Your task to perform on an android device: Go to eBay Image 0: 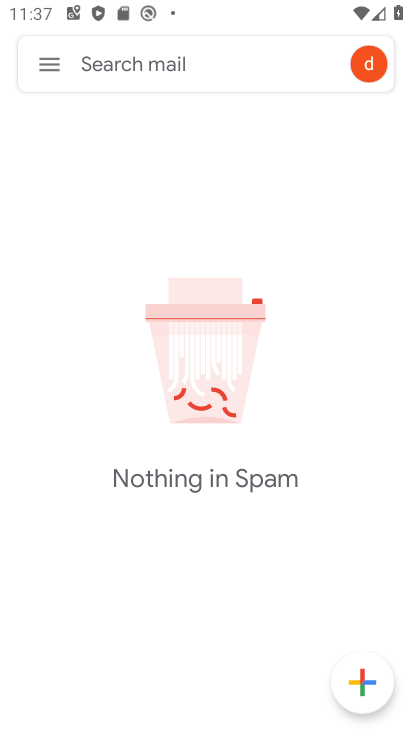
Step 0: press home button
Your task to perform on an android device: Go to eBay Image 1: 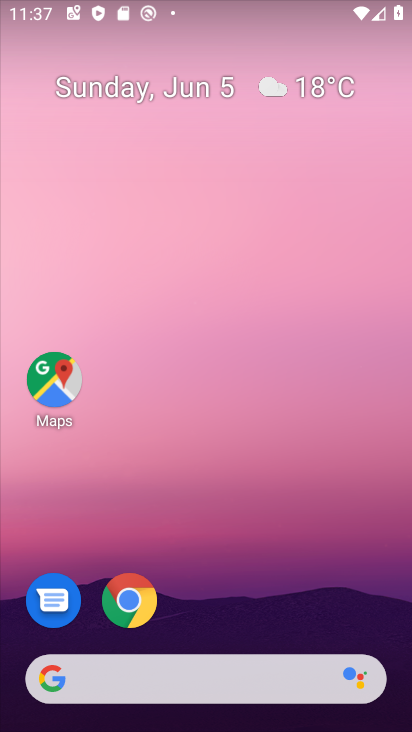
Step 1: click (110, 612)
Your task to perform on an android device: Go to eBay Image 2: 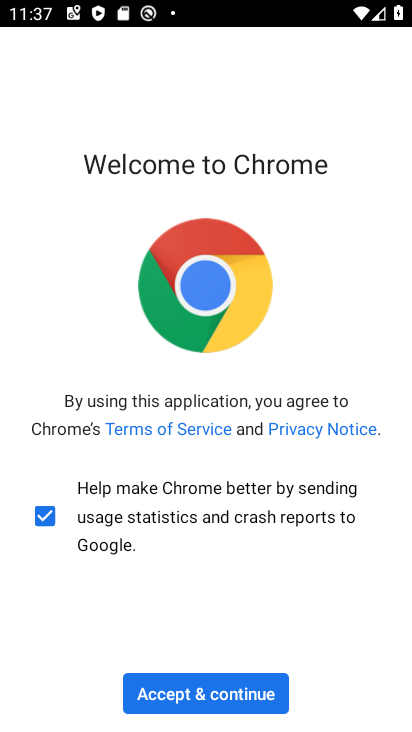
Step 2: click (213, 694)
Your task to perform on an android device: Go to eBay Image 3: 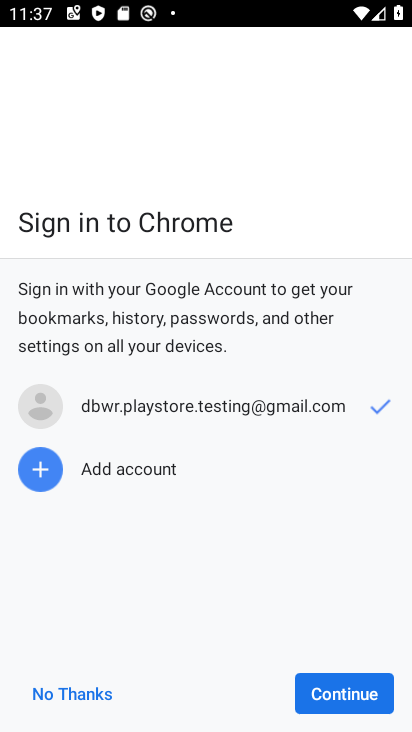
Step 3: click (334, 689)
Your task to perform on an android device: Go to eBay Image 4: 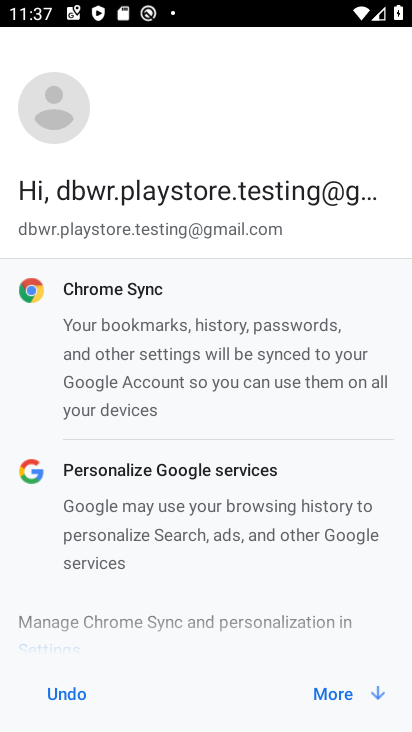
Step 4: click (340, 703)
Your task to perform on an android device: Go to eBay Image 5: 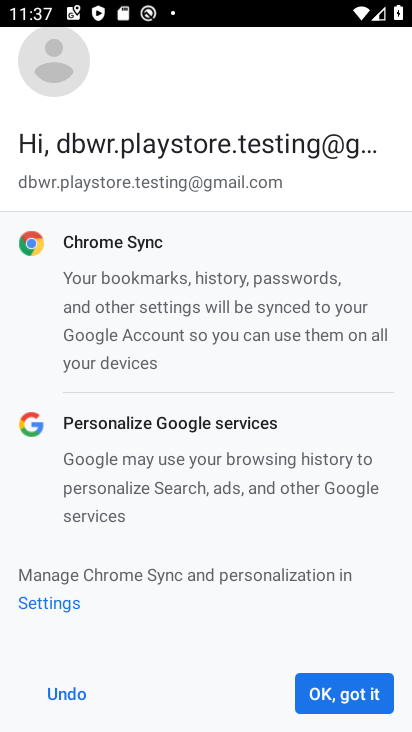
Step 5: click (341, 703)
Your task to perform on an android device: Go to eBay Image 6: 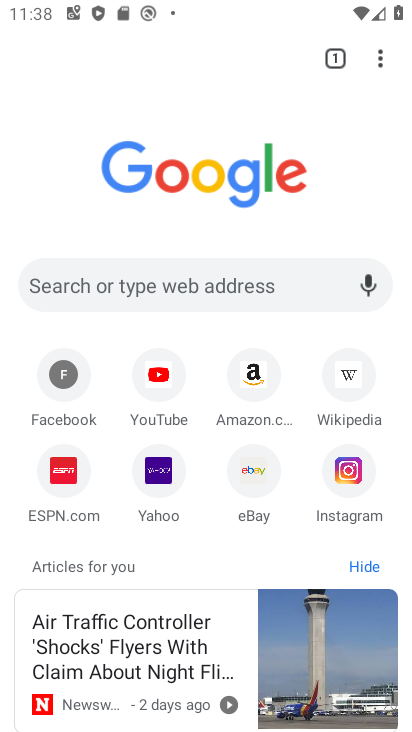
Step 6: click (259, 480)
Your task to perform on an android device: Go to eBay Image 7: 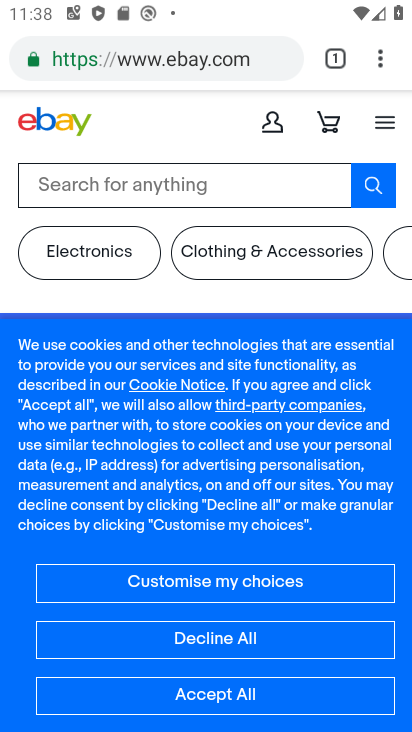
Step 7: click (275, 694)
Your task to perform on an android device: Go to eBay Image 8: 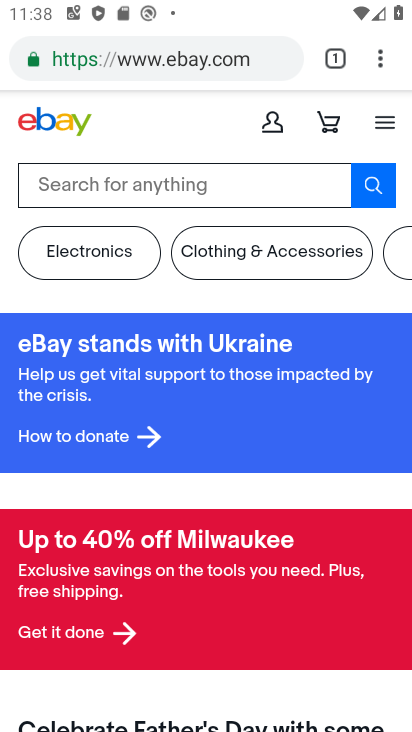
Step 8: task complete